Your task to perform on an android device: Search for vegetarian restaurants on Maps Image 0: 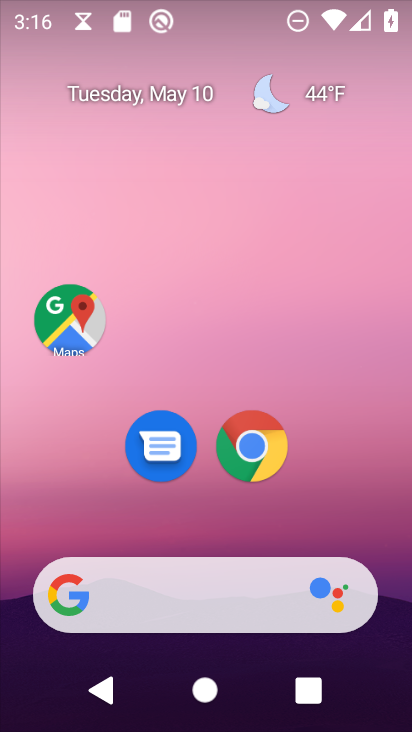
Step 0: drag from (368, 482) to (294, 77)
Your task to perform on an android device: Search for vegetarian restaurants on Maps Image 1: 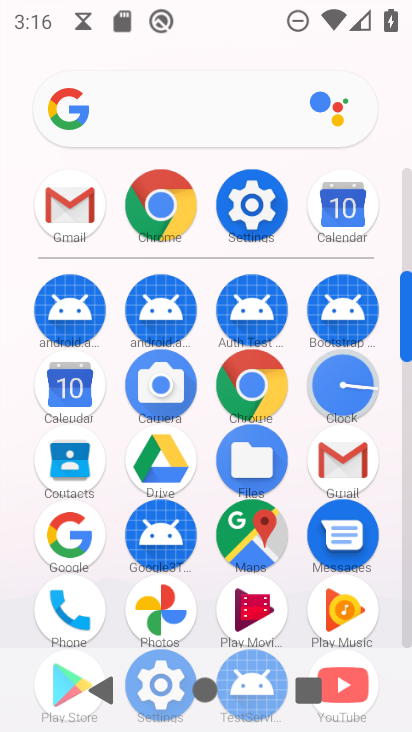
Step 1: click (269, 568)
Your task to perform on an android device: Search for vegetarian restaurants on Maps Image 2: 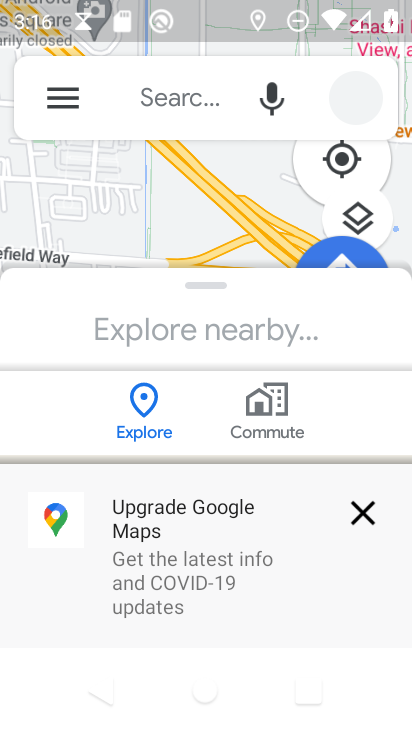
Step 2: click (355, 517)
Your task to perform on an android device: Search for vegetarian restaurants on Maps Image 3: 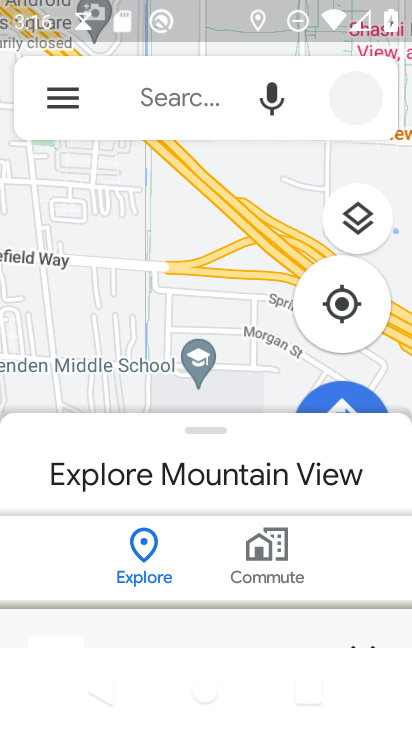
Step 3: click (208, 93)
Your task to perform on an android device: Search for vegetarian restaurants on Maps Image 4: 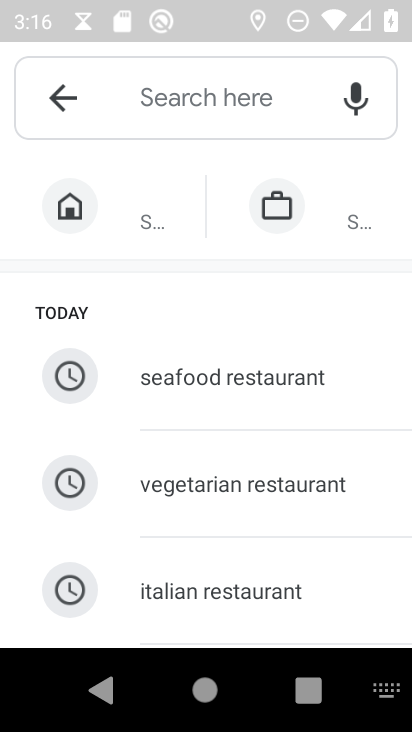
Step 4: click (266, 485)
Your task to perform on an android device: Search for vegetarian restaurants on Maps Image 5: 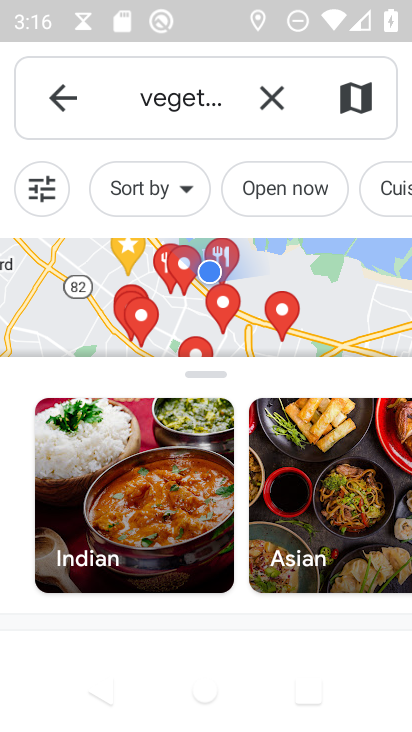
Step 5: task complete